Your task to perform on an android device: Go to Reddit.com Image 0: 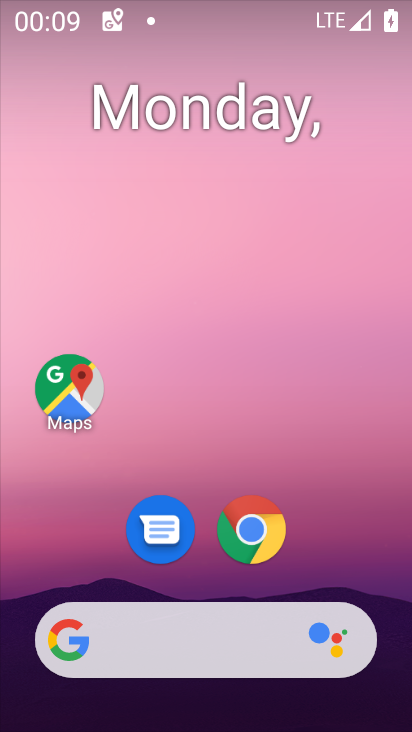
Step 0: click (253, 528)
Your task to perform on an android device: Go to Reddit.com Image 1: 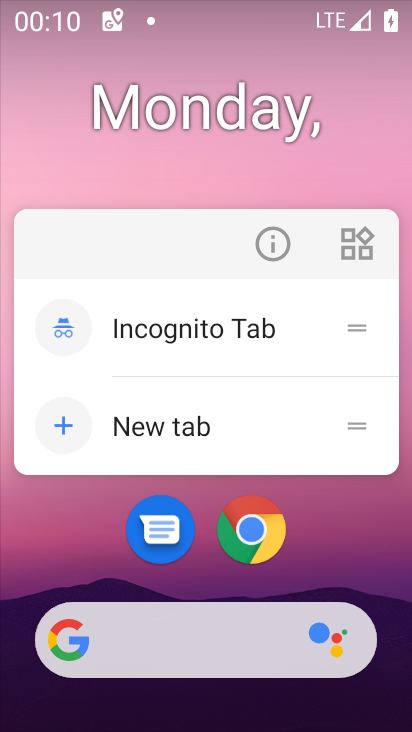
Step 1: click (253, 528)
Your task to perform on an android device: Go to Reddit.com Image 2: 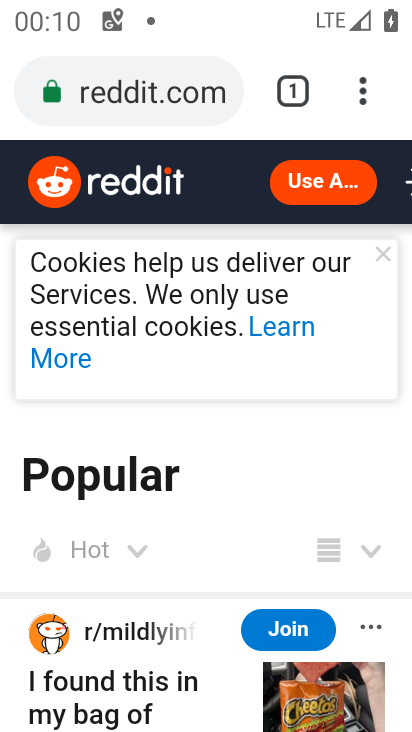
Step 2: task complete